Your task to perform on an android device: turn off improve location accuracy Image 0: 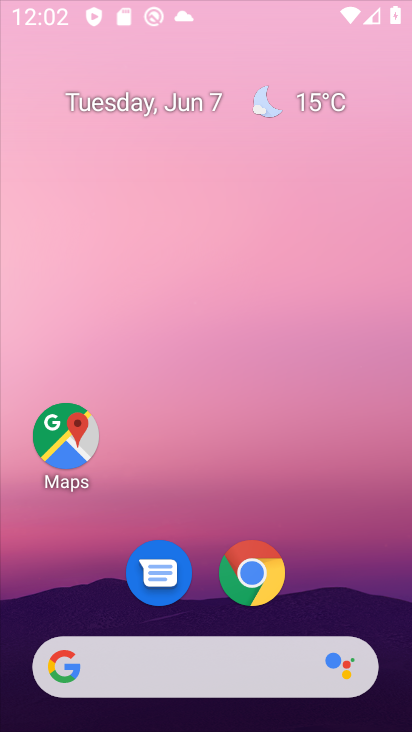
Step 0: press home button
Your task to perform on an android device: turn off improve location accuracy Image 1: 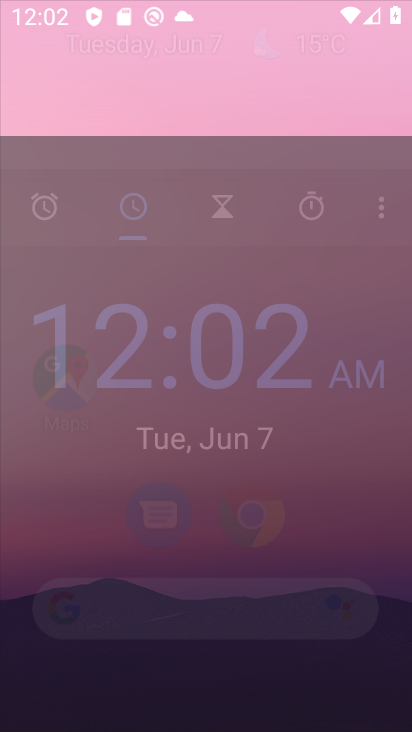
Step 1: click (251, 576)
Your task to perform on an android device: turn off improve location accuracy Image 2: 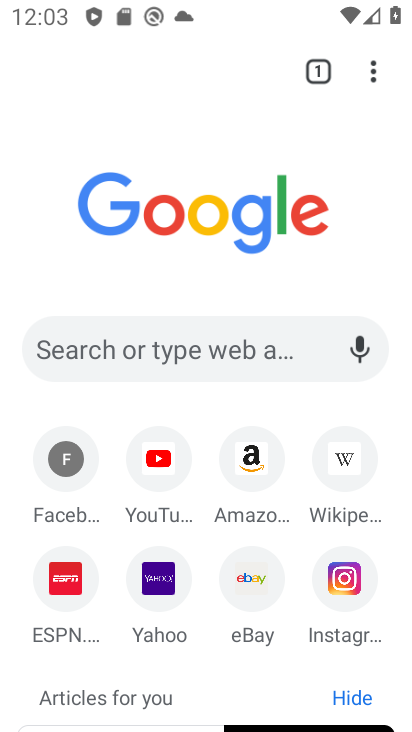
Step 2: press home button
Your task to perform on an android device: turn off improve location accuracy Image 3: 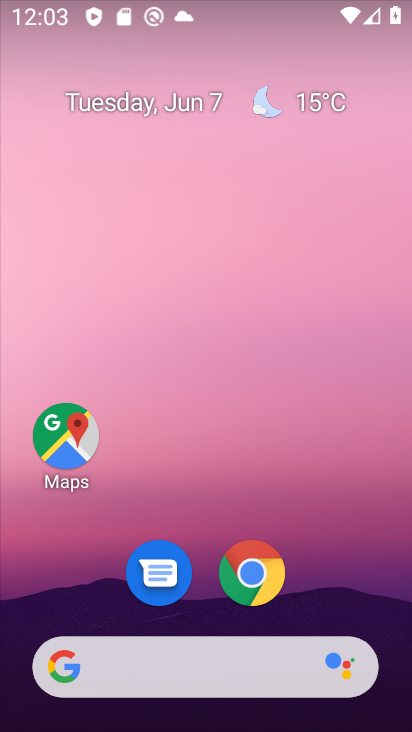
Step 3: drag from (198, 626) to (217, 71)
Your task to perform on an android device: turn off improve location accuracy Image 4: 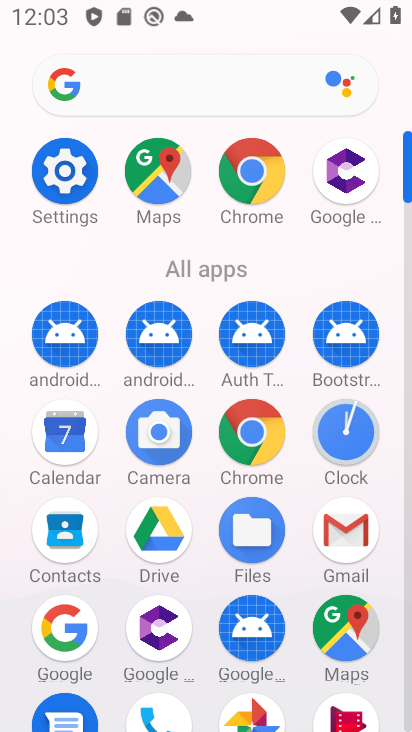
Step 4: click (74, 178)
Your task to perform on an android device: turn off improve location accuracy Image 5: 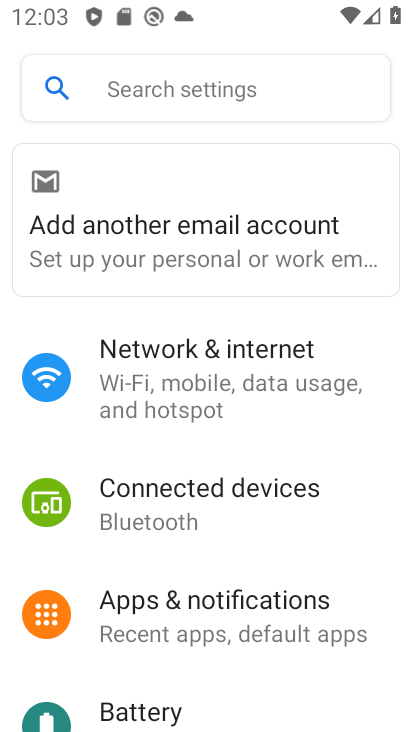
Step 5: drag from (251, 543) to (262, 123)
Your task to perform on an android device: turn off improve location accuracy Image 6: 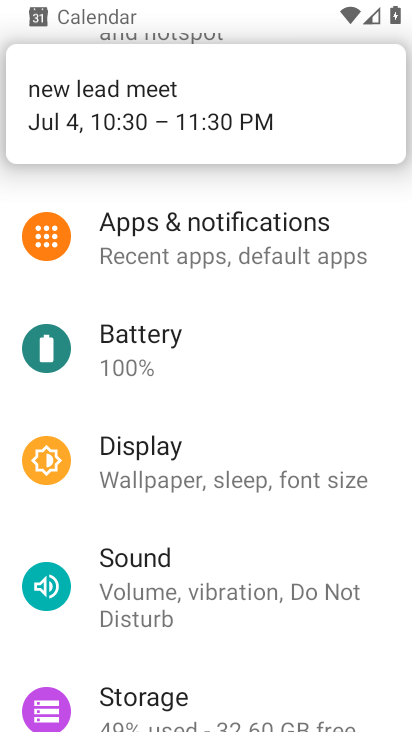
Step 6: drag from (249, 666) to (274, 310)
Your task to perform on an android device: turn off improve location accuracy Image 7: 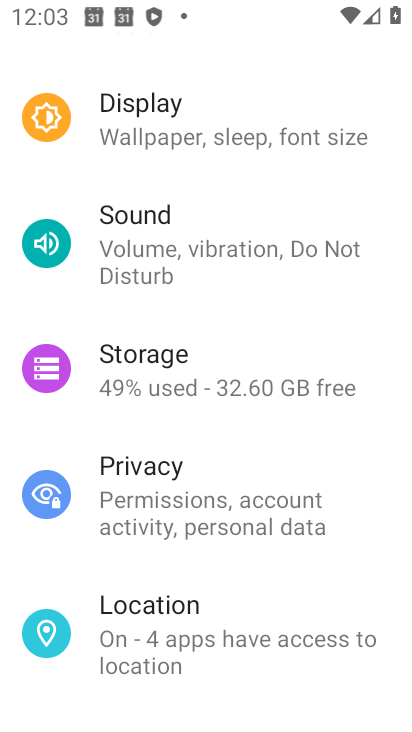
Step 7: click (189, 634)
Your task to perform on an android device: turn off improve location accuracy Image 8: 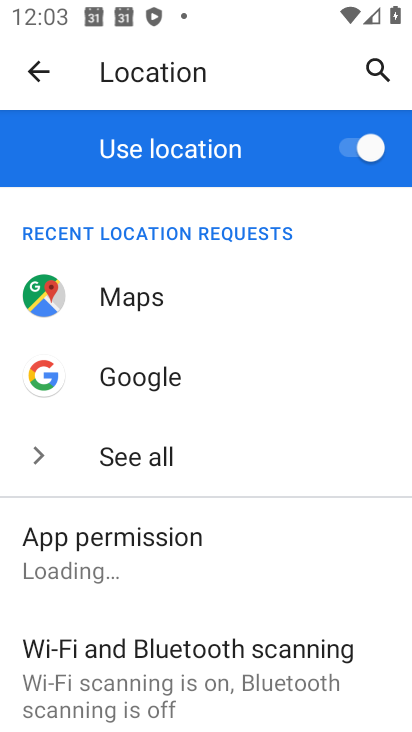
Step 8: drag from (256, 603) to (263, 151)
Your task to perform on an android device: turn off improve location accuracy Image 9: 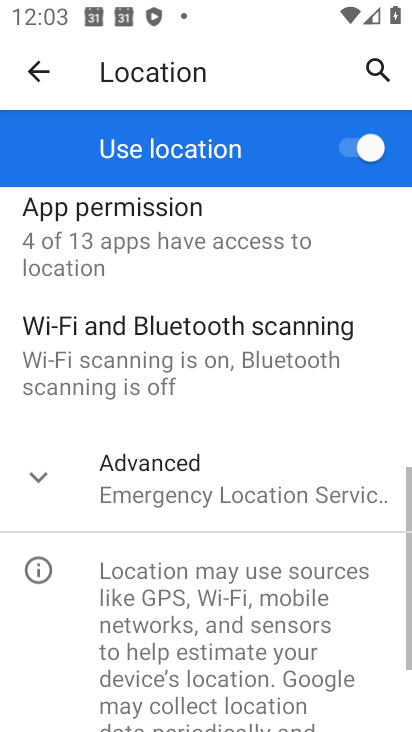
Step 9: click (113, 481)
Your task to perform on an android device: turn off improve location accuracy Image 10: 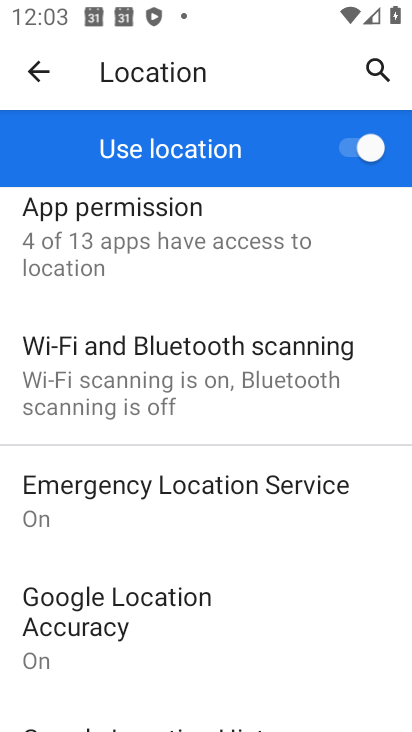
Step 10: drag from (295, 632) to (303, 449)
Your task to perform on an android device: turn off improve location accuracy Image 11: 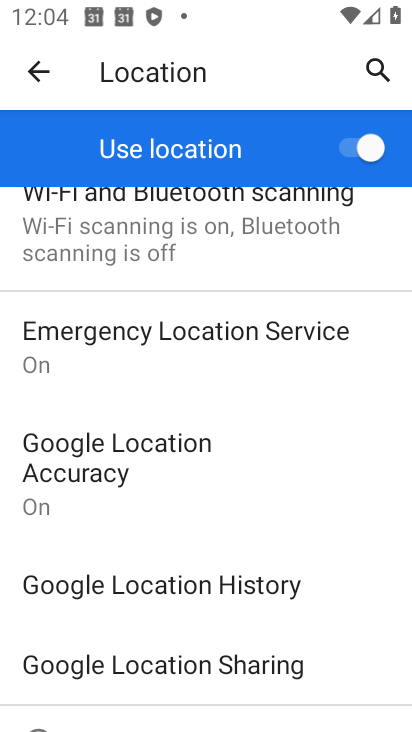
Step 11: click (117, 470)
Your task to perform on an android device: turn off improve location accuracy Image 12: 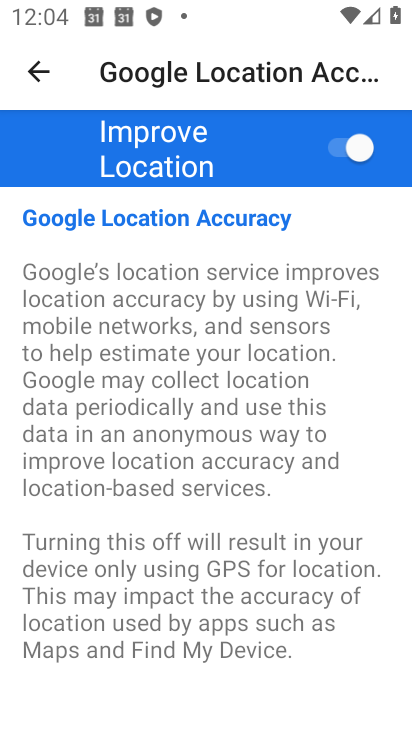
Step 12: click (354, 142)
Your task to perform on an android device: turn off improve location accuracy Image 13: 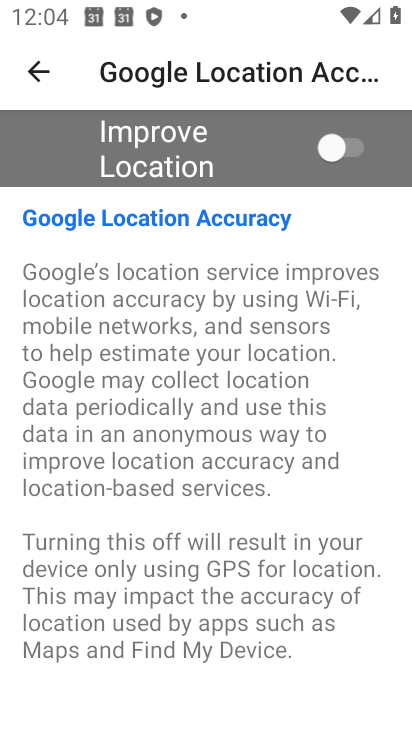
Step 13: task complete